Your task to perform on an android device: Open Maps and search for coffee Image 0: 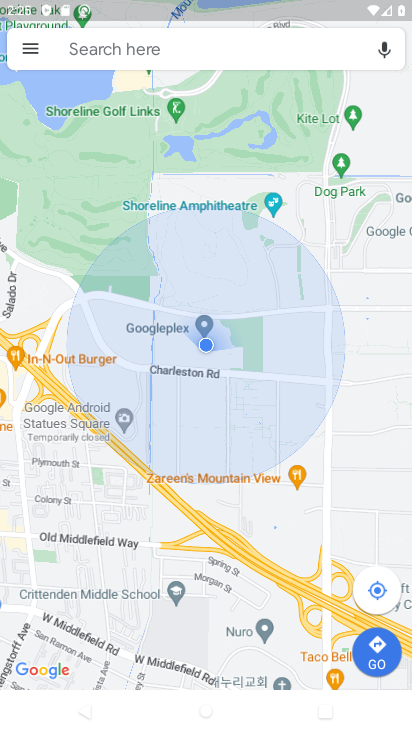
Step 0: click (252, 38)
Your task to perform on an android device: Open Maps and search for coffee Image 1: 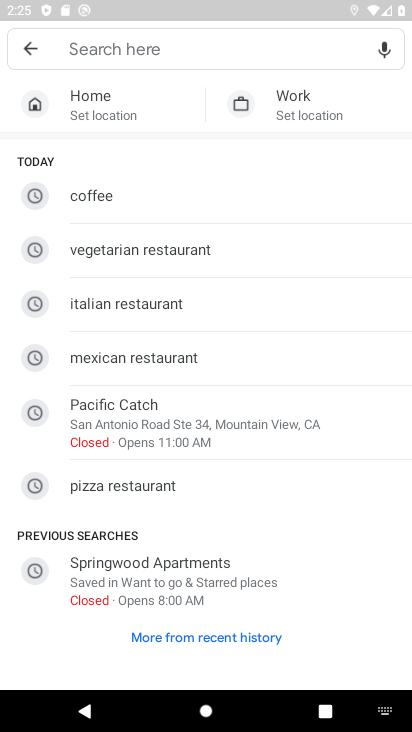
Step 1: click (109, 214)
Your task to perform on an android device: Open Maps and search for coffee Image 2: 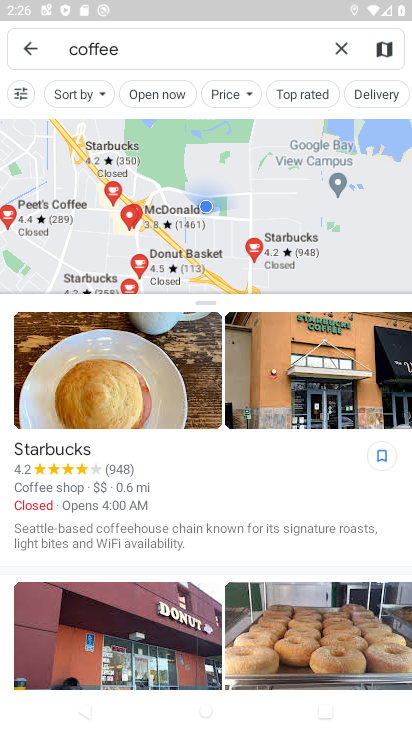
Step 2: task complete